Your task to perform on an android device: Go to Reddit.com Image 0: 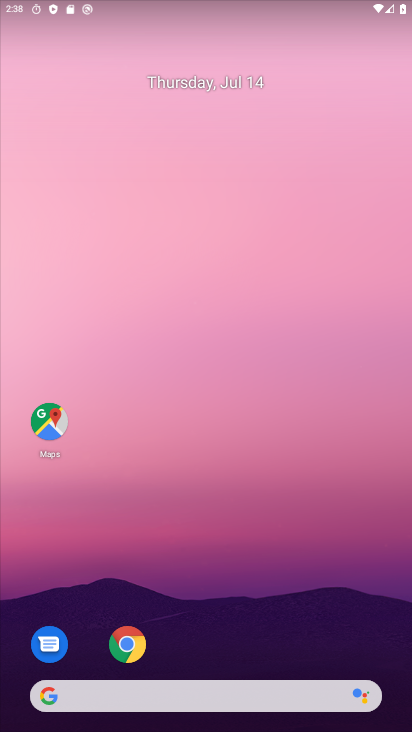
Step 0: click (106, 700)
Your task to perform on an android device: Go to Reddit.com Image 1: 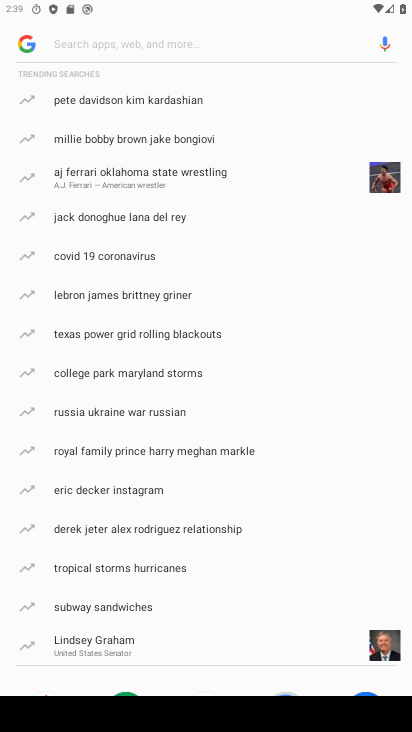
Step 1: type "Reddit.com"
Your task to perform on an android device: Go to Reddit.com Image 2: 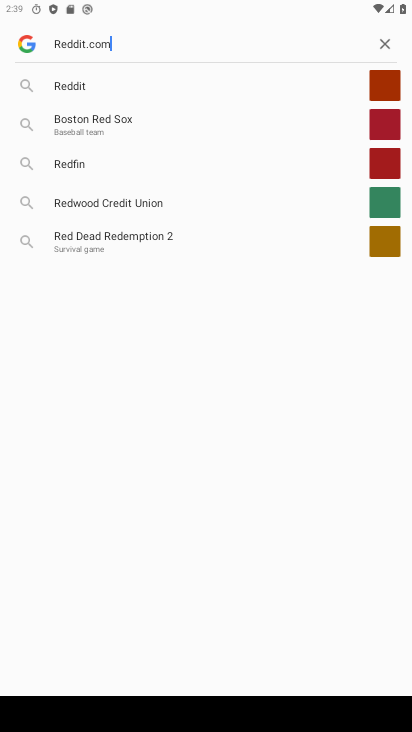
Step 2: type ""
Your task to perform on an android device: Go to Reddit.com Image 3: 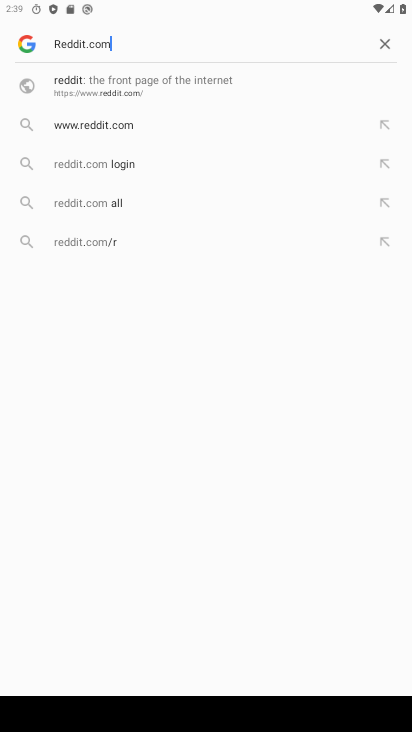
Step 3: click (90, 86)
Your task to perform on an android device: Go to Reddit.com Image 4: 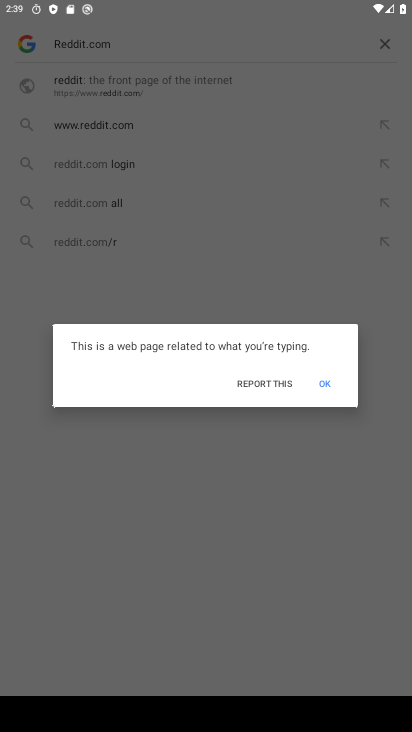
Step 4: click (327, 379)
Your task to perform on an android device: Go to Reddit.com Image 5: 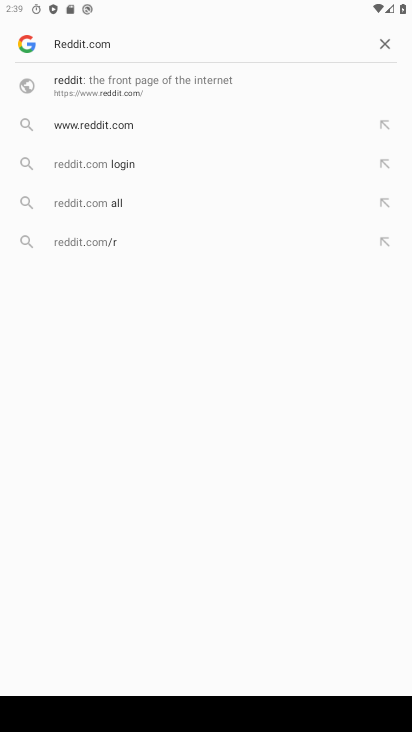
Step 5: task complete